Your task to perform on an android device: turn off sleep mode Image 0: 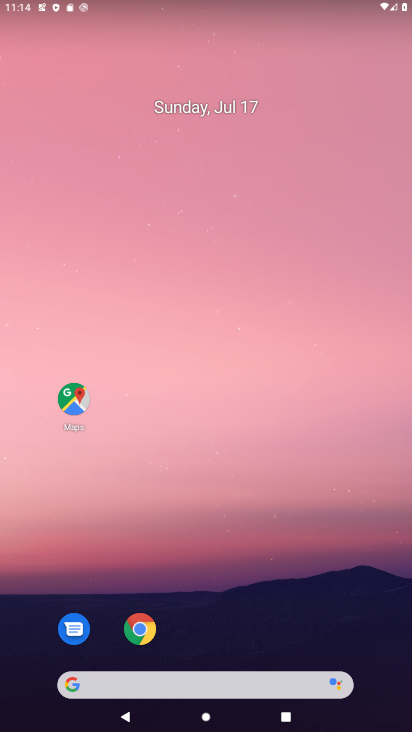
Step 0: press home button
Your task to perform on an android device: turn off sleep mode Image 1: 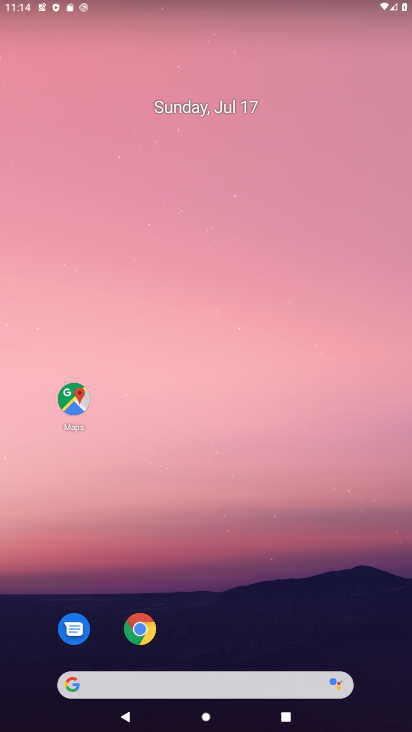
Step 1: drag from (225, 674) to (225, 352)
Your task to perform on an android device: turn off sleep mode Image 2: 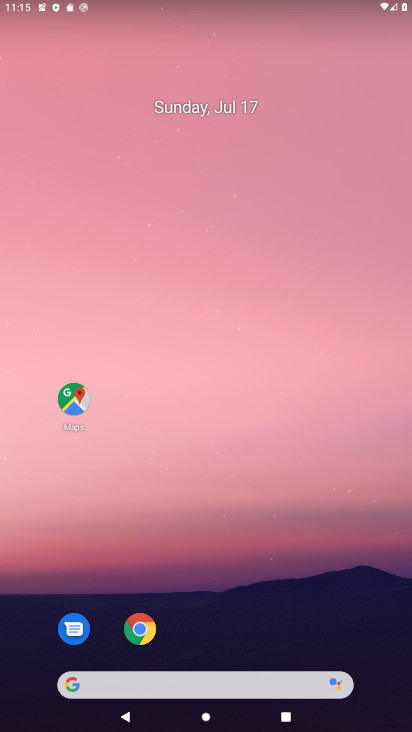
Step 2: drag from (166, 610) to (201, 144)
Your task to perform on an android device: turn off sleep mode Image 3: 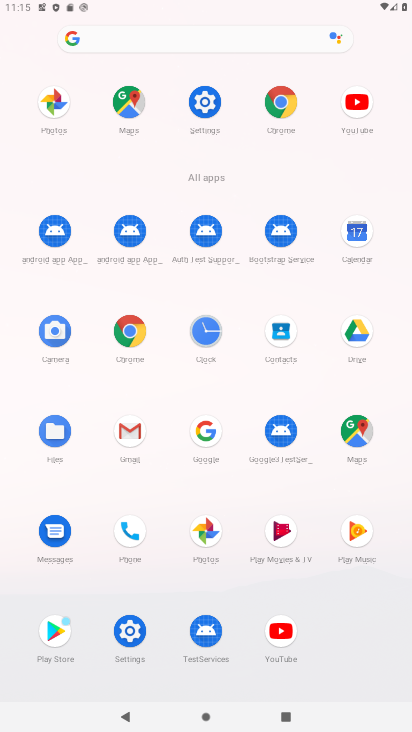
Step 3: click (198, 92)
Your task to perform on an android device: turn off sleep mode Image 4: 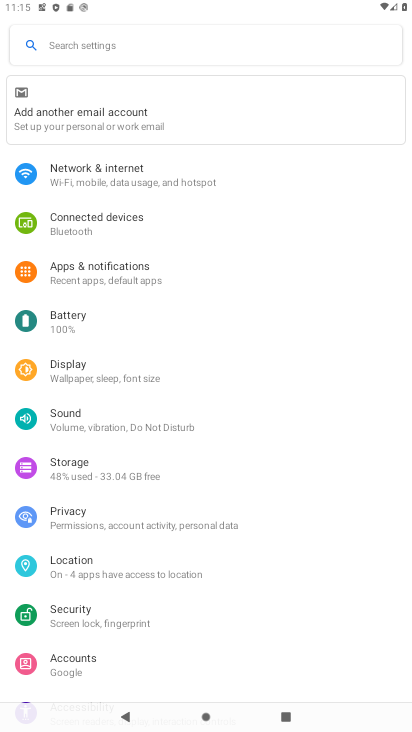
Step 4: task complete